Your task to perform on an android device: What's the news today? Image 0: 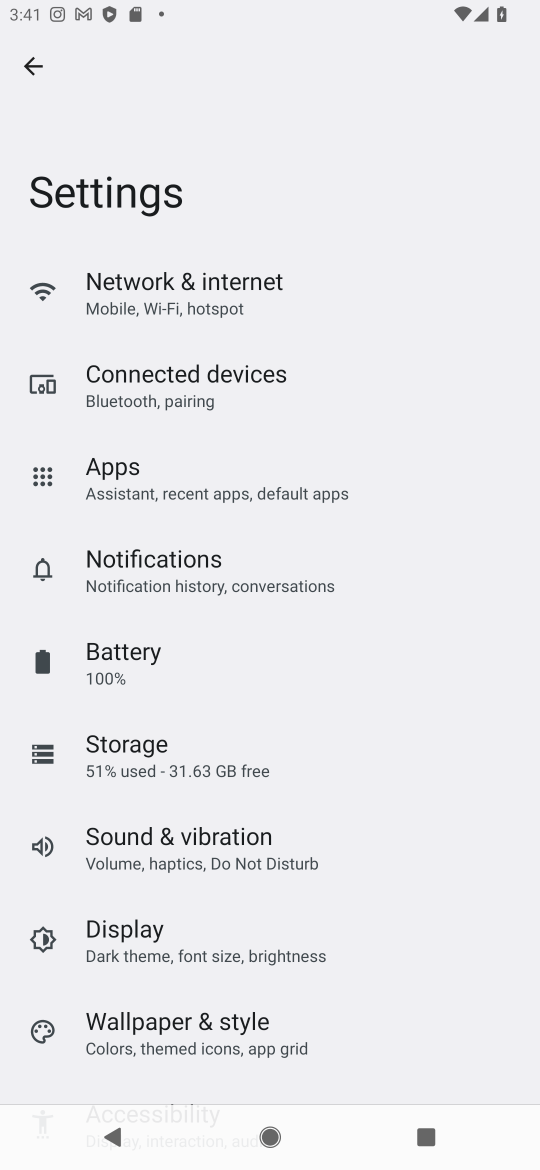
Step 0: press home button
Your task to perform on an android device: What's the news today? Image 1: 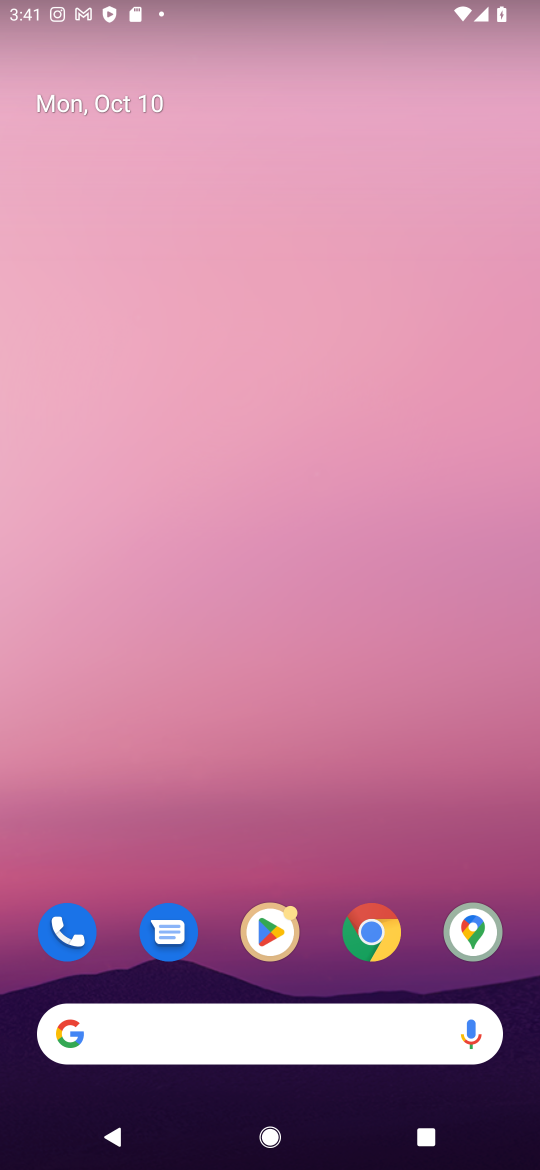
Step 1: click (253, 1035)
Your task to perform on an android device: What's the news today? Image 2: 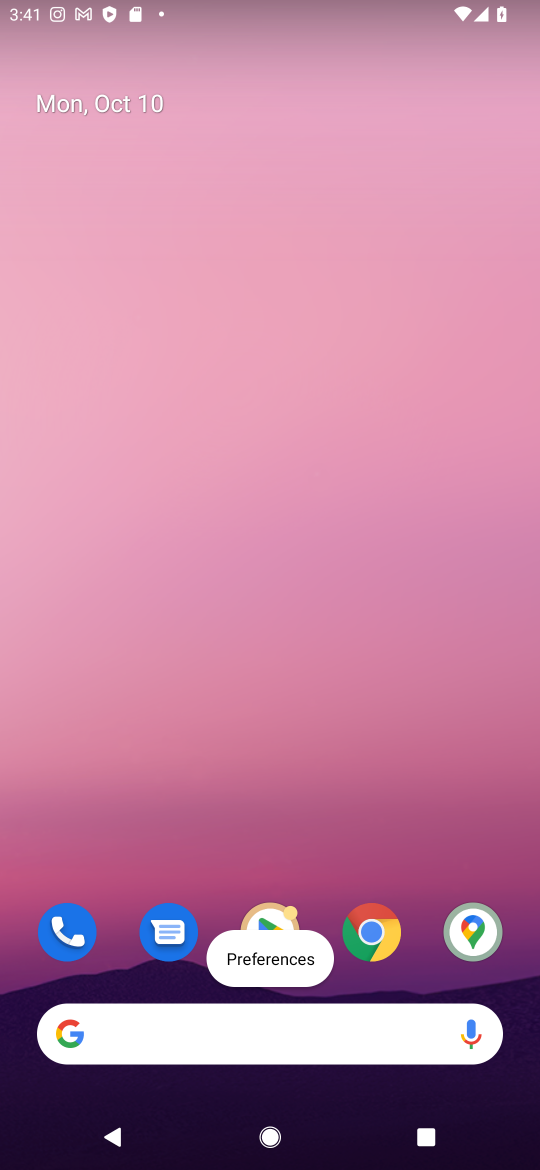
Step 2: click (166, 1041)
Your task to perform on an android device: What's the news today? Image 3: 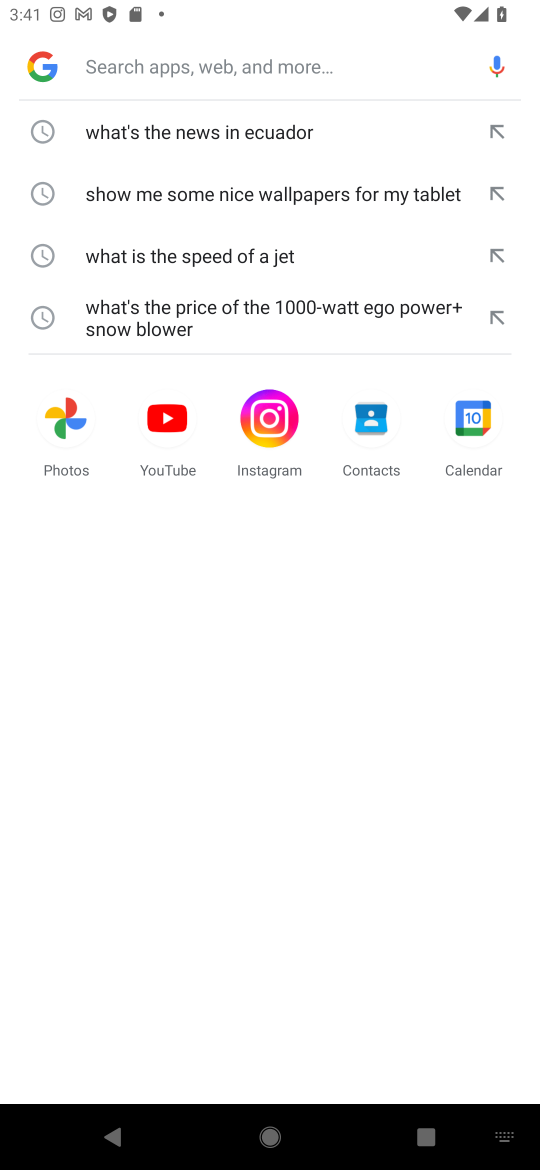
Step 3: type "What's the news today"
Your task to perform on an android device: What's the news today? Image 4: 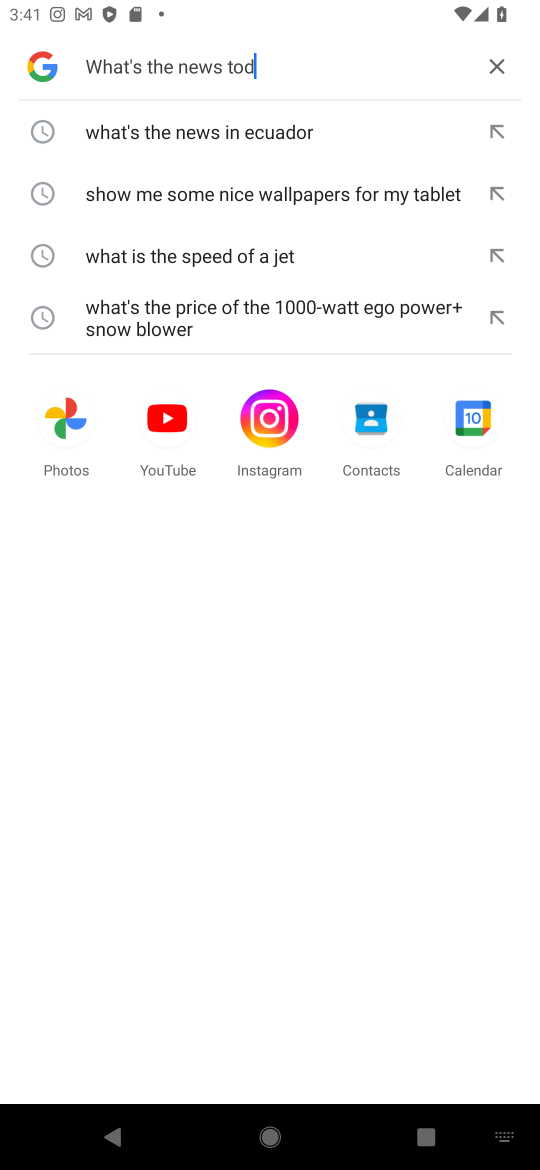
Step 4: press enter
Your task to perform on an android device: What's the news today? Image 5: 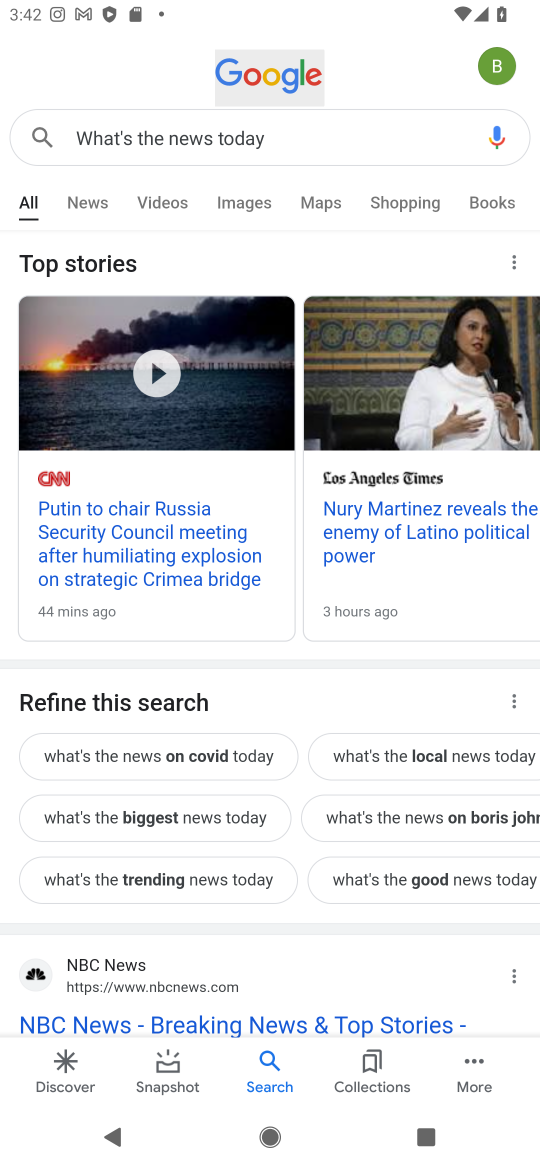
Step 5: drag from (393, 891) to (393, 406)
Your task to perform on an android device: What's the news today? Image 6: 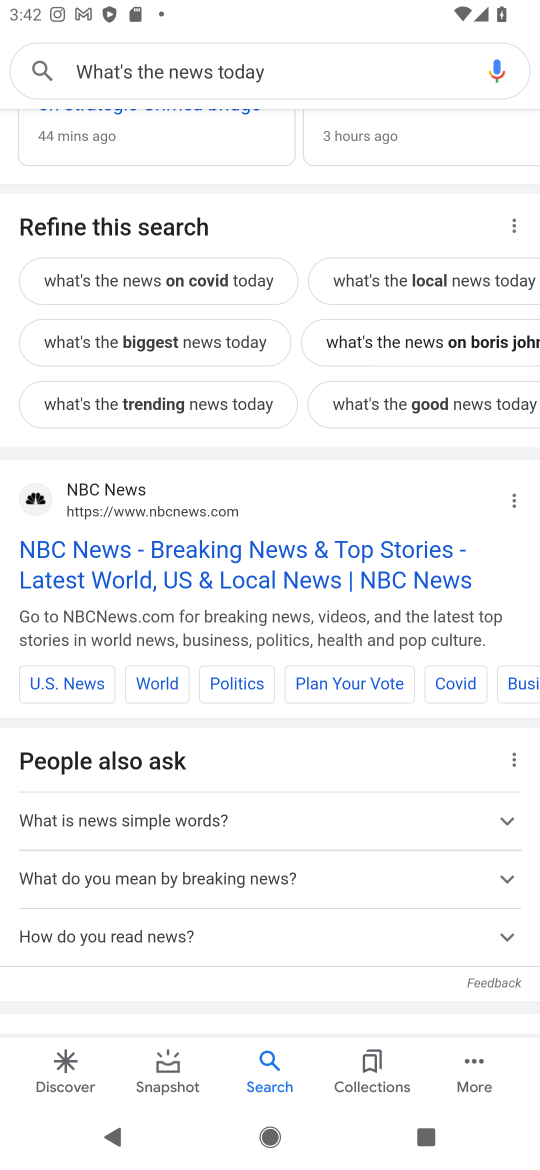
Step 6: click (359, 557)
Your task to perform on an android device: What's the news today? Image 7: 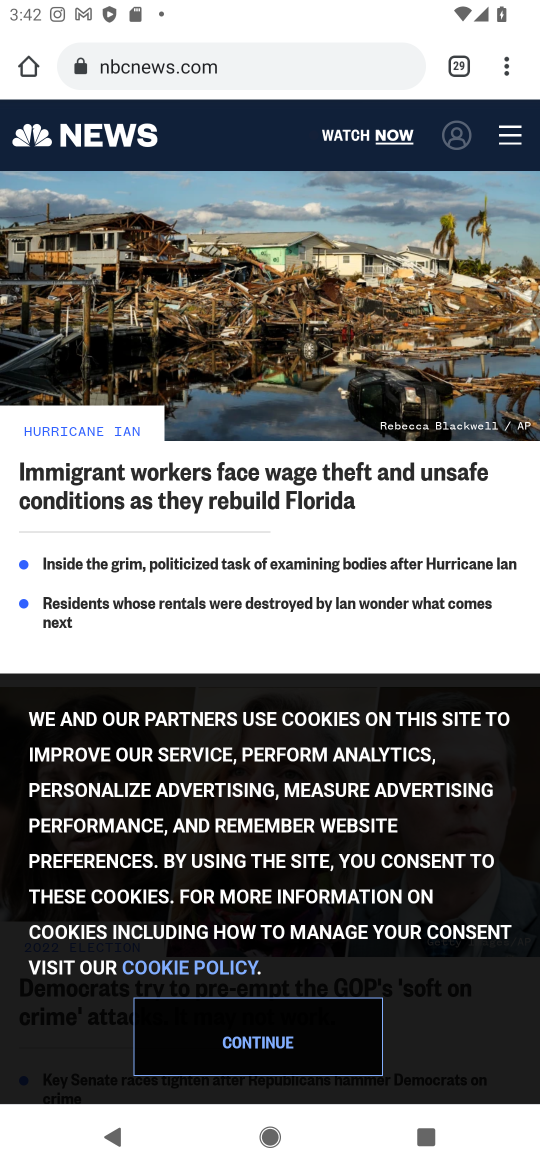
Step 7: click (328, 1042)
Your task to perform on an android device: What's the news today? Image 8: 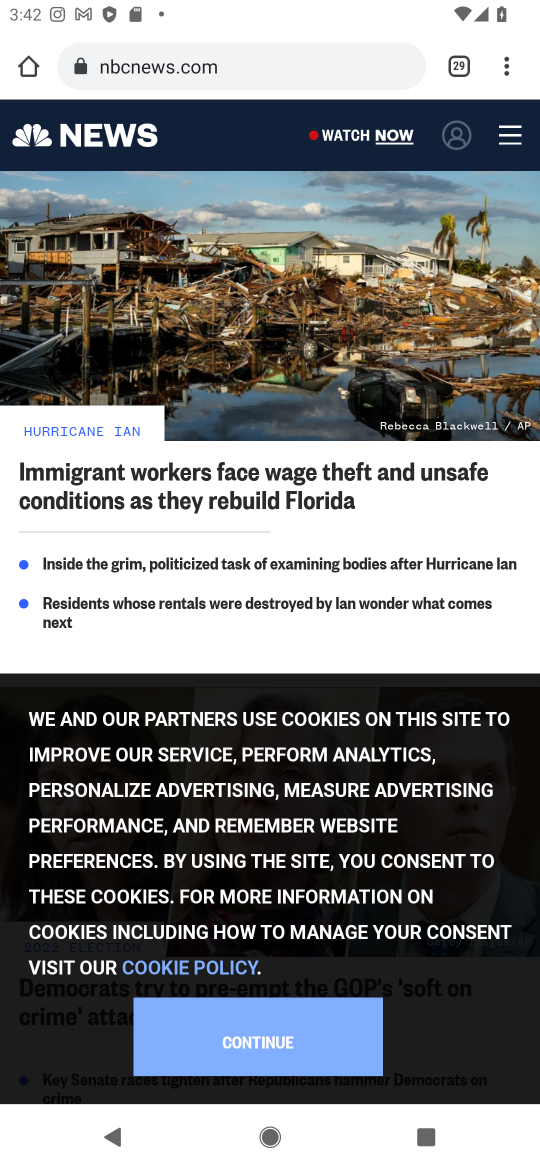
Step 8: task complete